Your task to perform on an android device: Do I have any events today? Image 0: 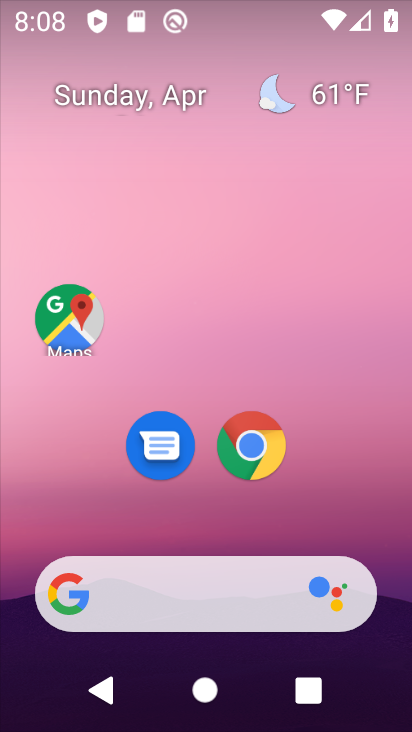
Step 0: drag from (217, 444) to (221, 131)
Your task to perform on an android device: Do I have any events today? Image 1: 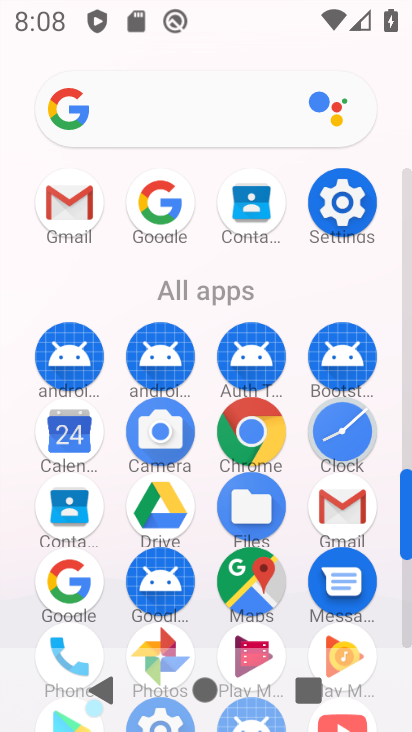
Step 1: click (61, 443)
Your task to perform on an android device: Do I have any events today? Image 2: 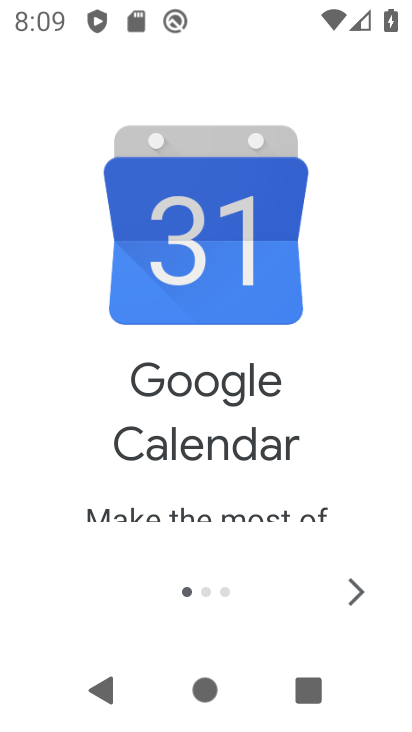
Step 2: click (357, 591)
Your task to perform on an android device: Do I have any events today? Image 3: 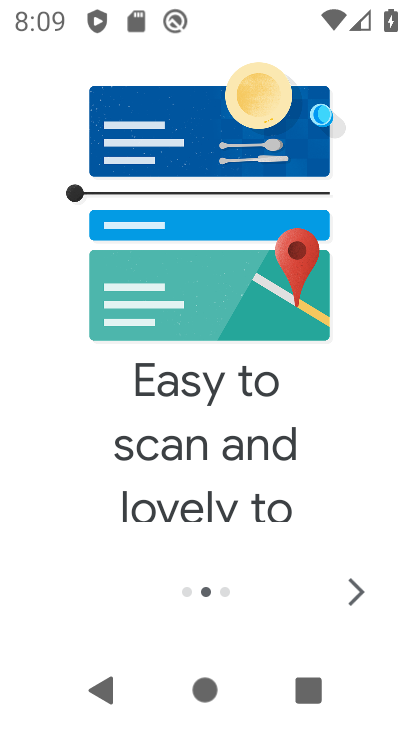
Step 3: click (357, 593)
Your task to perform on an android device: Do I have any events today? Image 4: 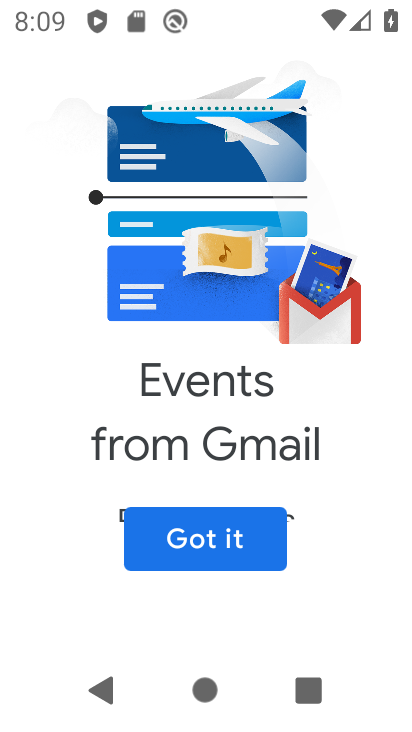
Step 4: click (184, 541)
Your task to perform on an android device: Do I have any events today? Image 5: 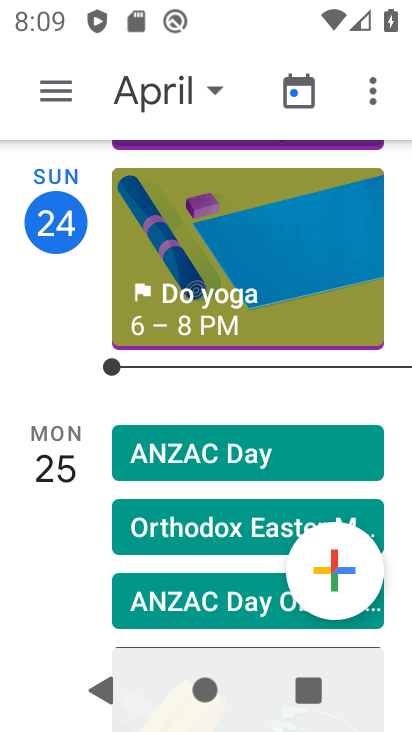
Step 5: click (207, 89)
Your task to perform on an android device: Do I have any events today? Image 6: 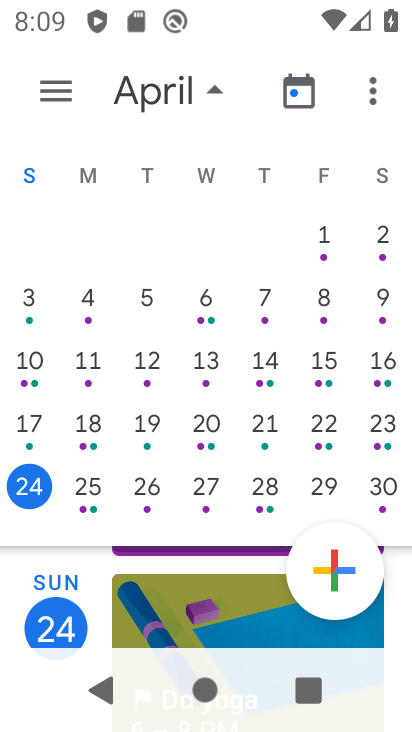
Step 6: click (30, 494)
Your task to perform on an android device: Do I have any events today? Image 7: 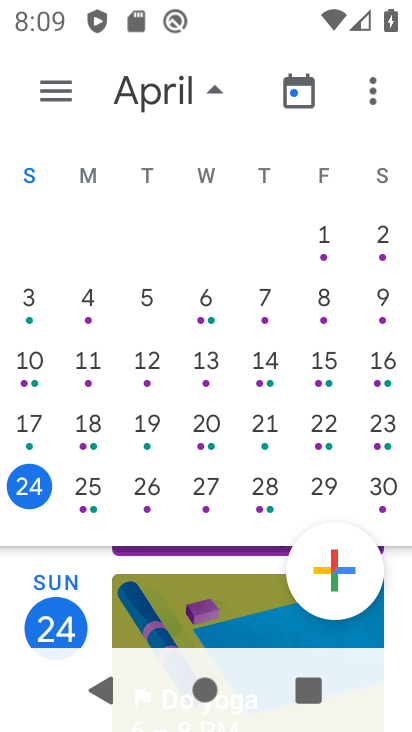
Step 7: task complete